Your task to perform on an android device: Is it going to rain tomorrow? Image 0: 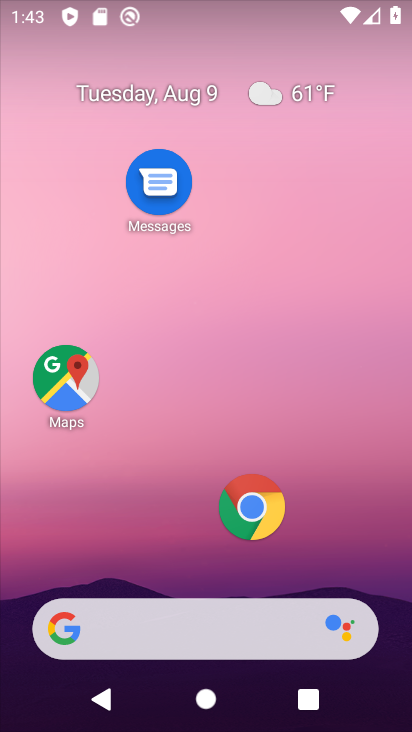
Step 0: drag from (181, 588) to (221, 6)
Your task to perform on an android device: Is it going to rain tomorrow? Image 1: 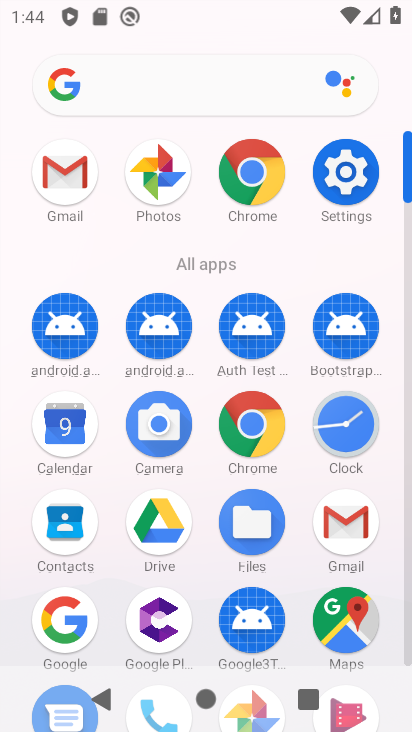
Step 1: click (186, 88)
Your task to perform on an android device: Is it going to rain tomorrow? Image 2: 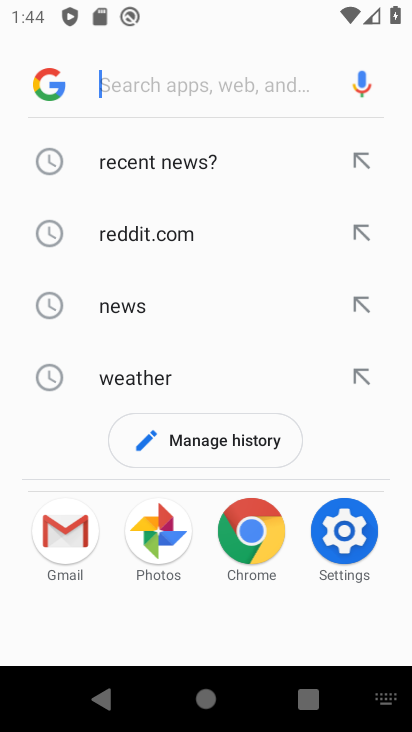
Step 2: click (128, 388)
Your task to perform on an android device: Is it going to rain tomorrow? Image 3: 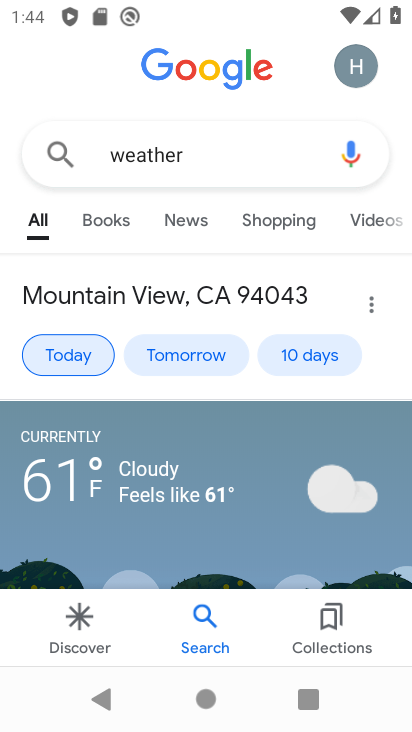
Step 3: click (161, 353)
Your task to perform on an android device: Is it going to rain tomorrow? Image 4: 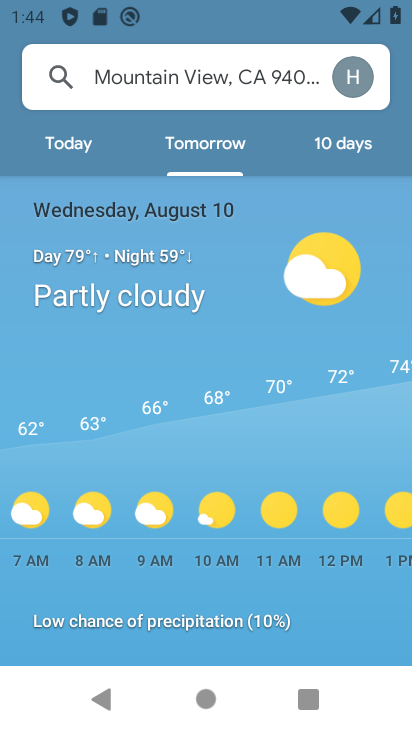
Step 4: task complete